Your task to perform on an android device: Search for seafood restaurants on Google Maps Image 0: 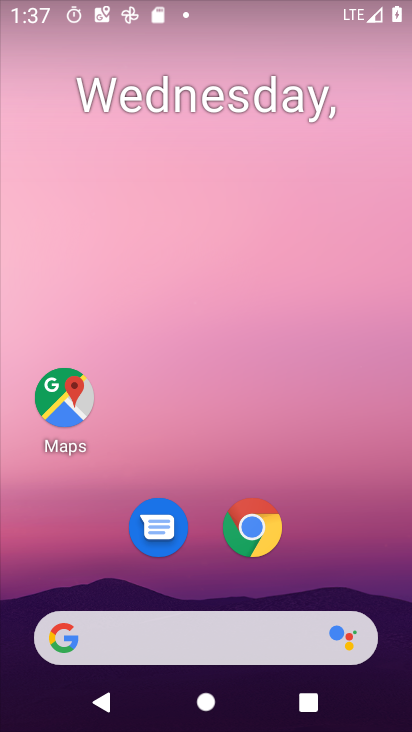
Step 0: drag from (234, 573) to (260, 75)
Your task to perform on an android device: Search for seafood restaurants on Google Maps Image 1: 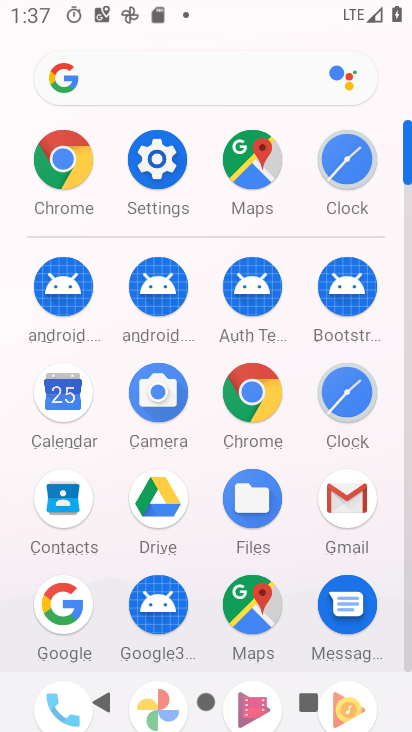
Step 1: click (251, 602)
Your task to perform on an android device: Search for seafood restaurants on Google Maps Image 2: 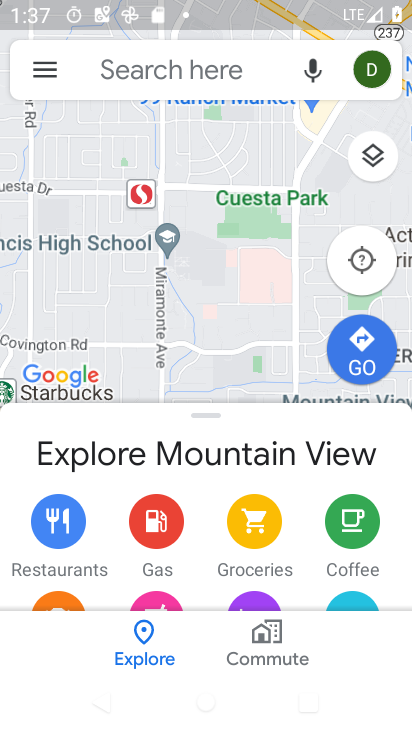
Step 2: click (139, 78)
Your task to perform on an android device: Search for seafood restaurants on Google Maps Image 3: 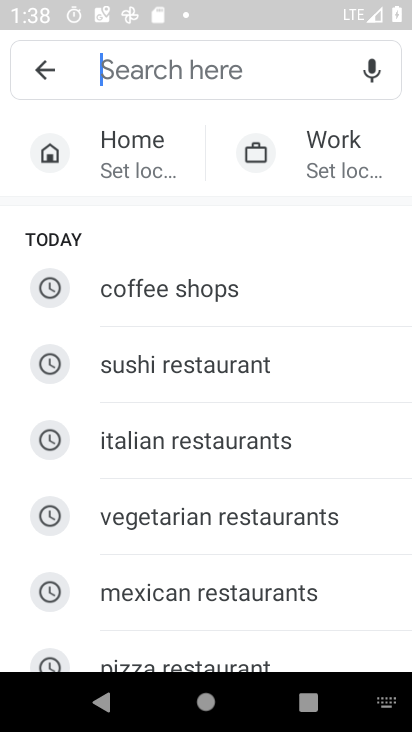
Step 3: type "seafood restaurant"
Your task to perform on an android device: Search for seafood restaurants on Google Maps Image 4: 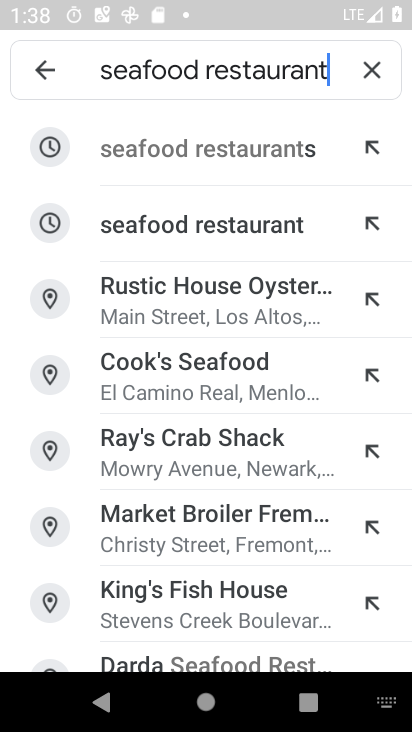
Step 4: click (206, 161)
Your task to perform on an android device: Search for seafood restaurants on Google Maps Image 5: 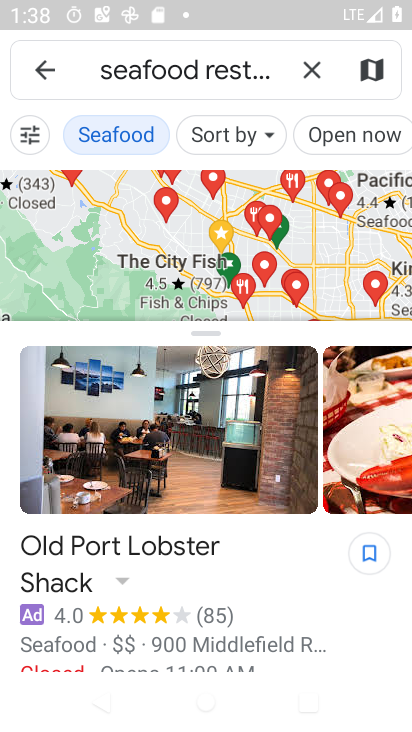
Step 5: task complete